Your task to perform on an android device: Is it going to rain this weekend? Image 0: 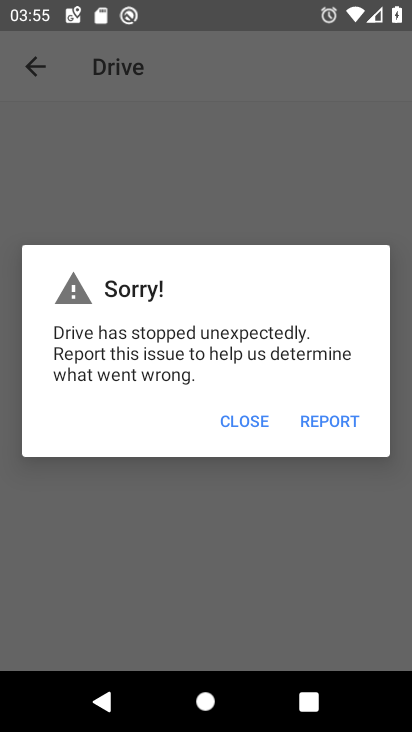
Step 0: press home button
Your task to perform on an android device: Is it going to rain this weekend? Image 1: 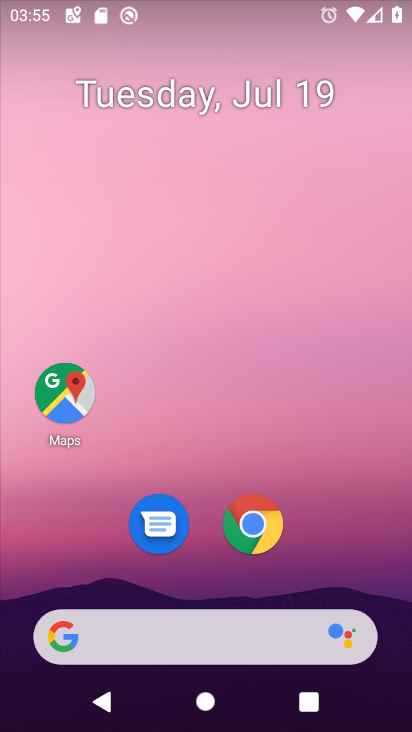
Step 1: click (226, 640)
Your task to perform on an android device: Is it going to rain this weekend? Image 2: 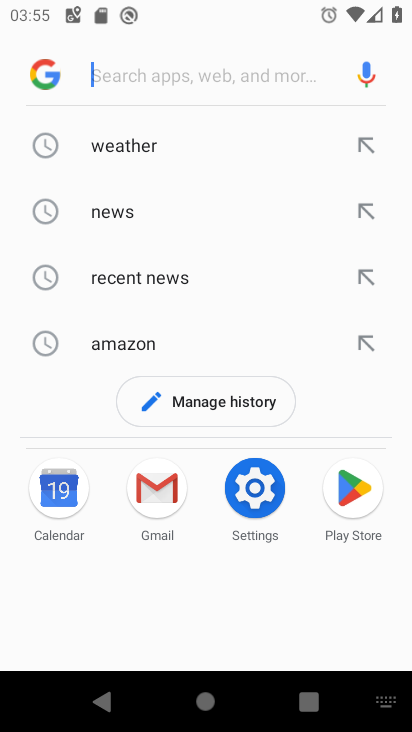
Step 2: click (143, 138)
Your task to perform on an android device: Is it going to rain this weekend? Image 3: 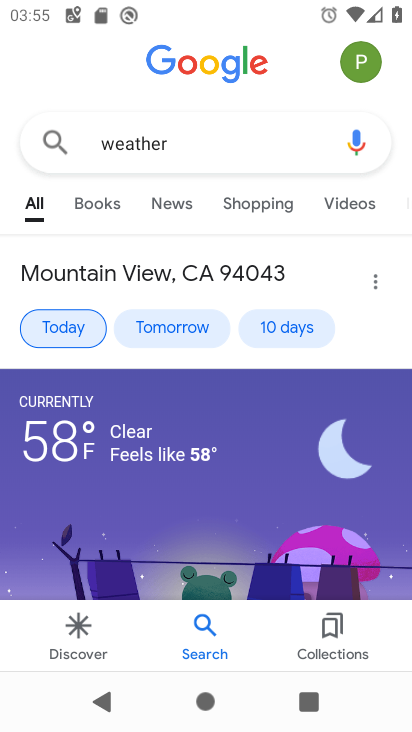
Step 3: click (62, 333)
Your task to perform on an android device: Is it going to rain this weekend? Image 4: 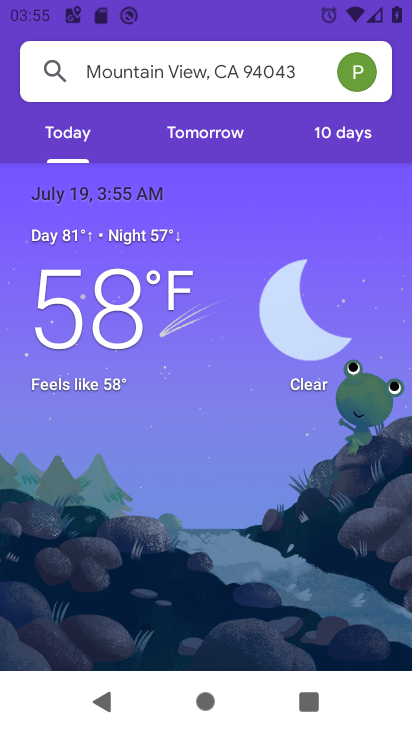
Step 4: click (325, 125)
Your task to perform on an android device: Is it going to rain this weekend? Image 5: 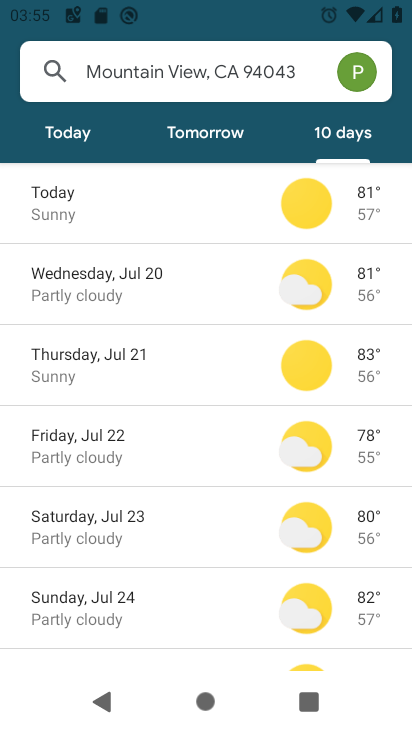
Step 5: click (154, 507)
Your task to perform on an android device: Is it going to rain this weekend? Image 6: 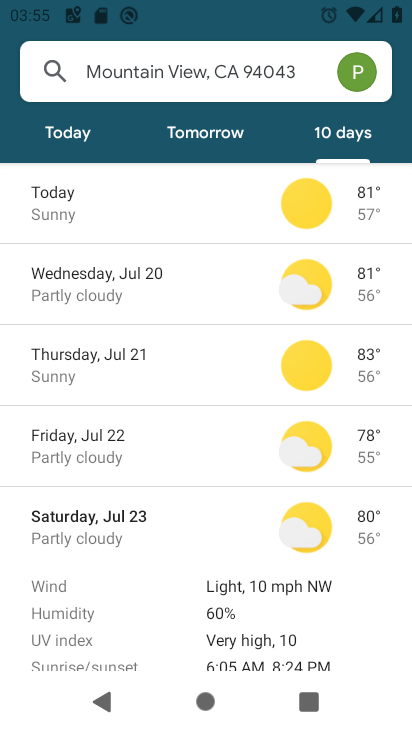
Step 6: task complete